Your task to perform on an android device: Open the map Image 0: 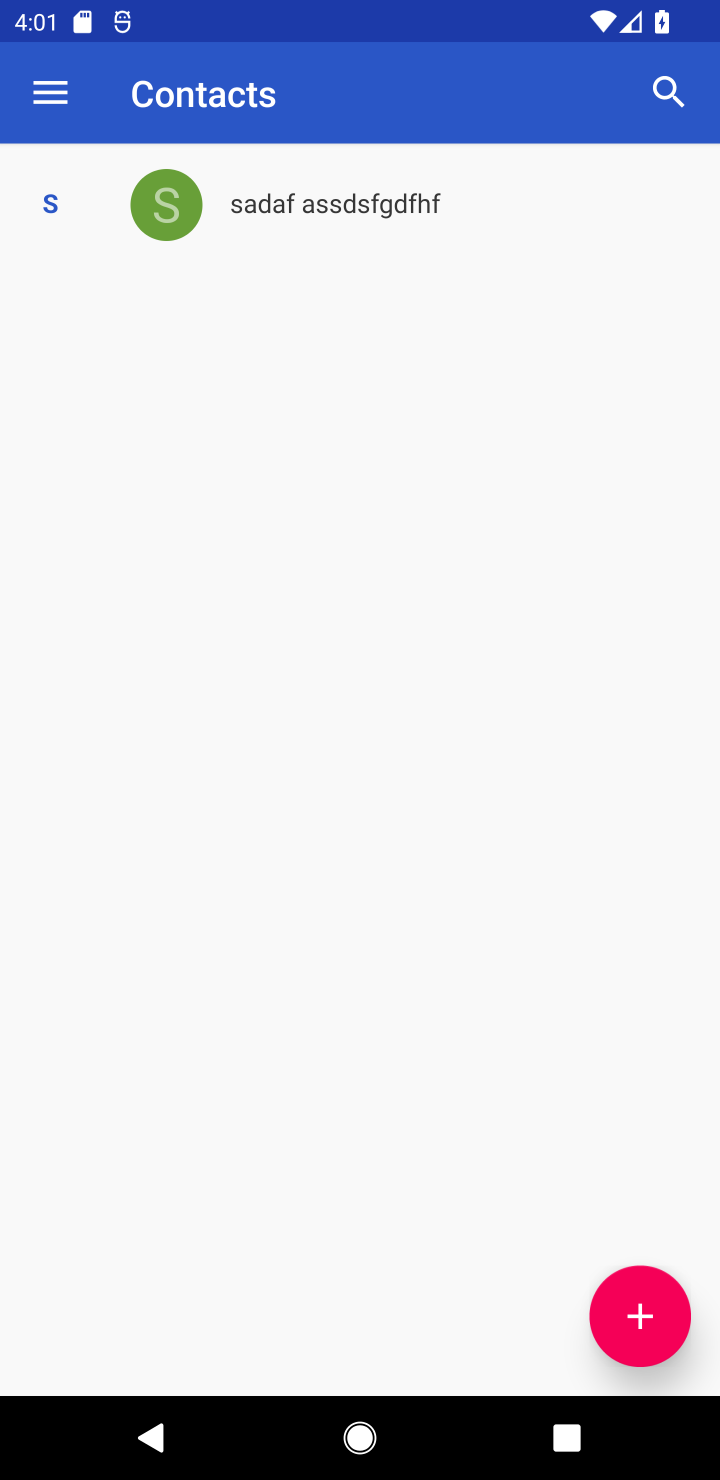
Step 0: press home button
Your task to perform on an android device: Open the map Image 1: 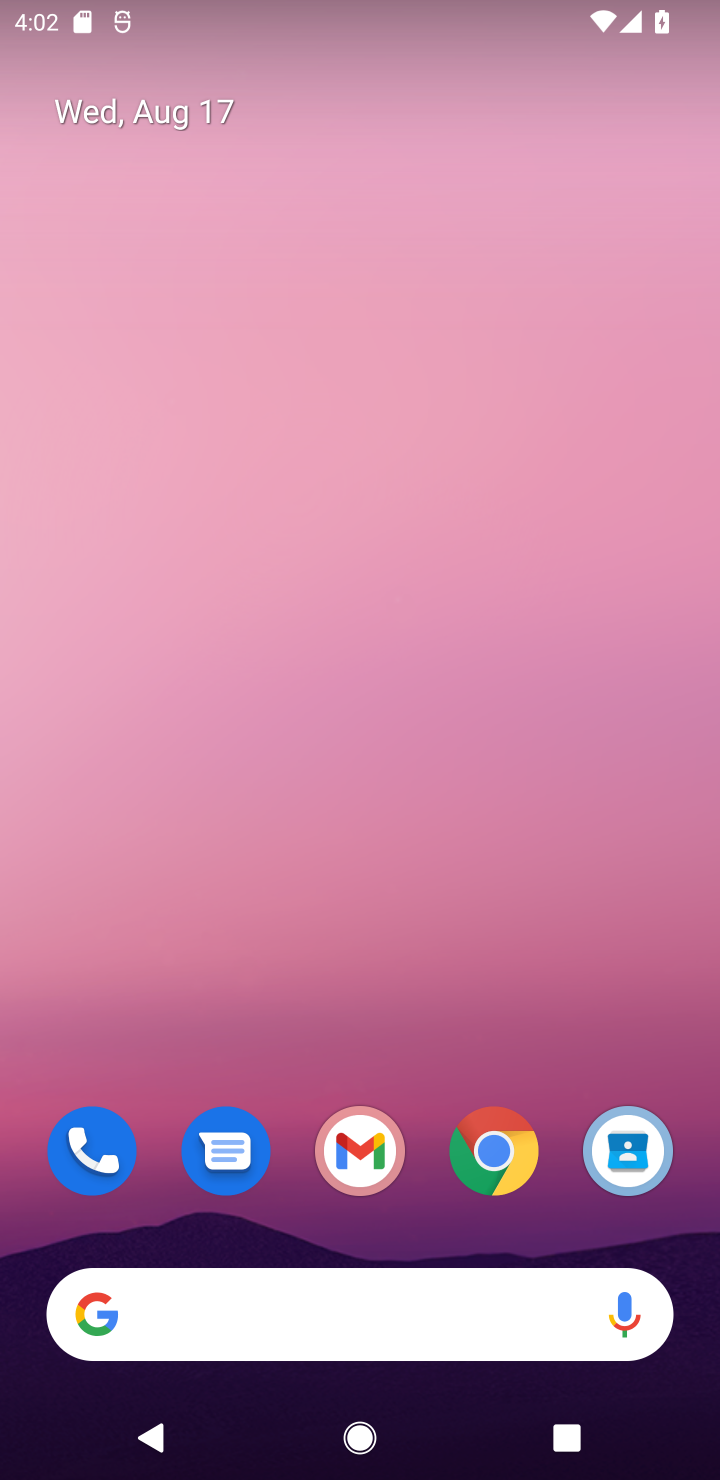
Step 1: drag from (396, 905) to (361, 268)
Your task to perform on an android device: Open the map Image 2: 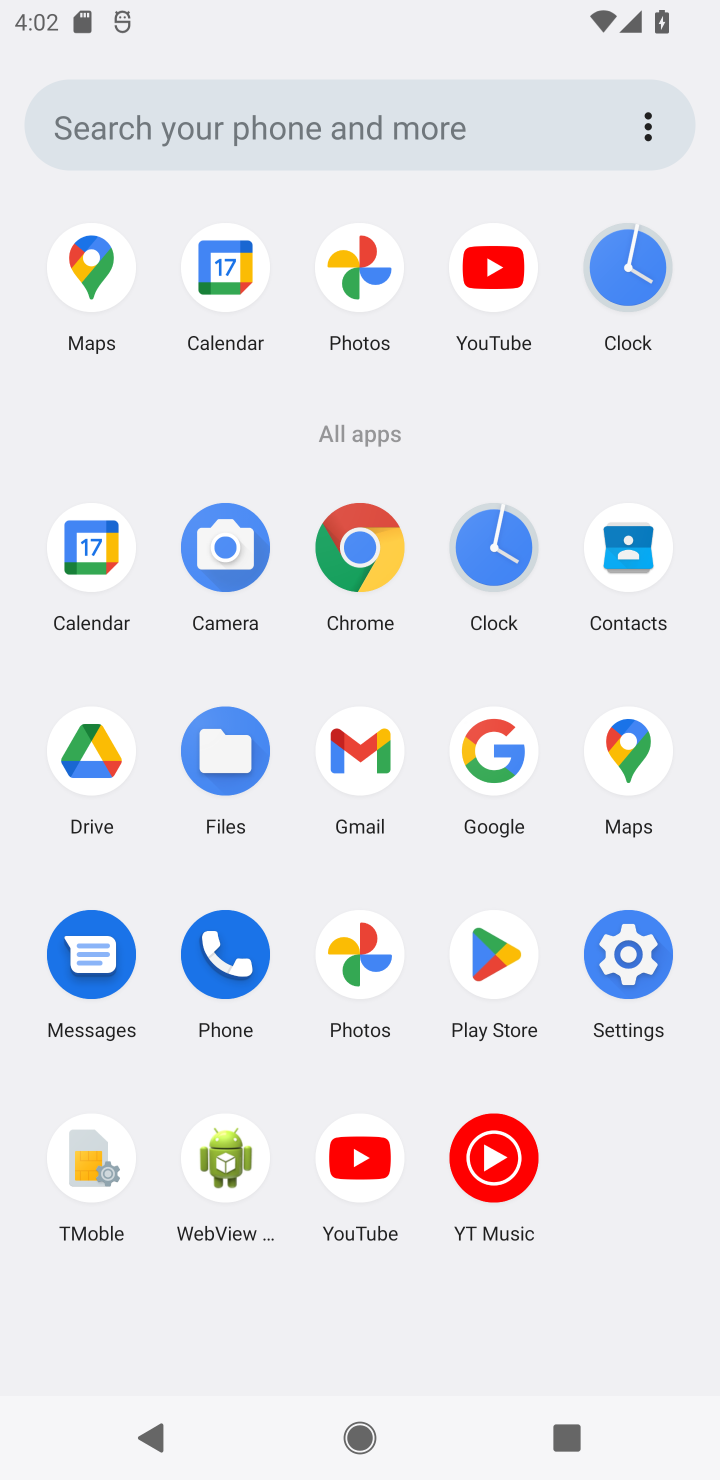
Step 2: click (69, 415)
Your task to perform on an android device: Open the map Image 3: 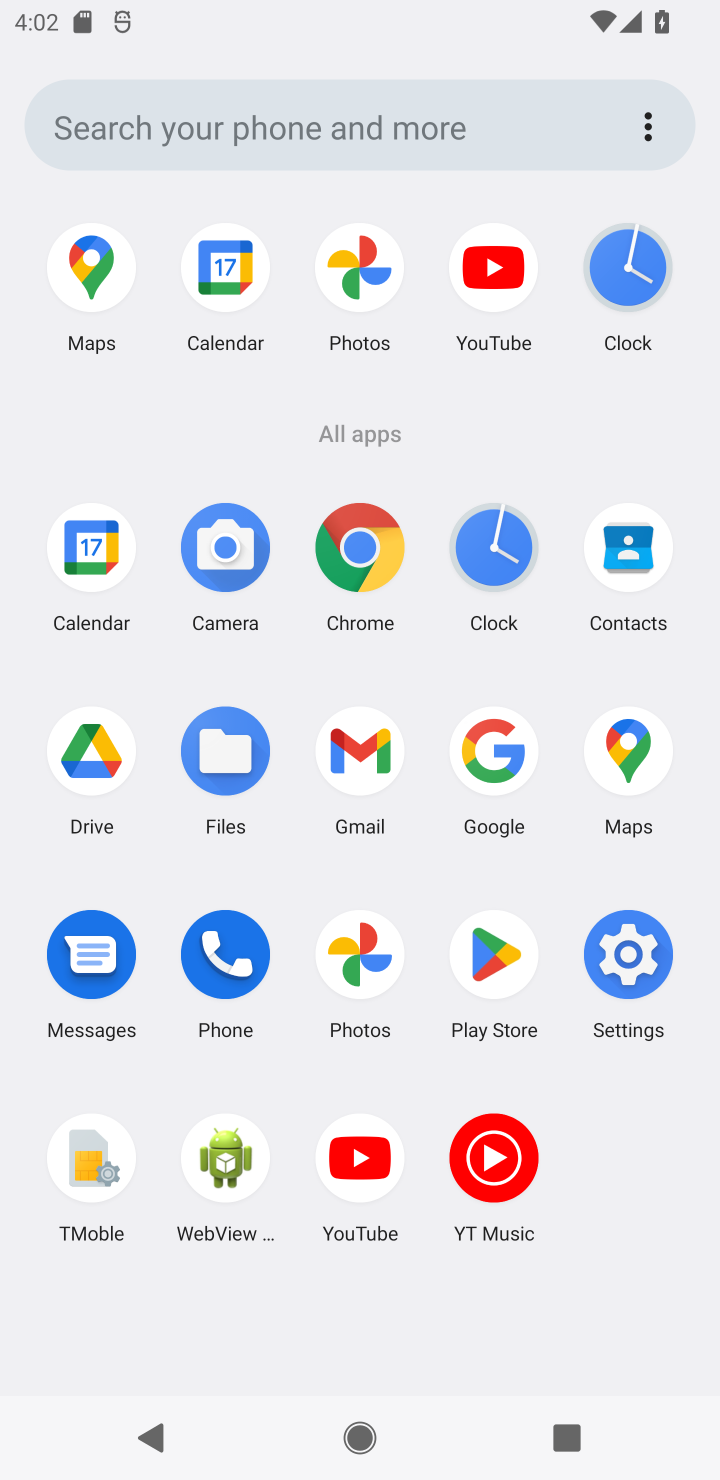
Step 3: click (100, 333)
Your task to perform on an android device: Open the map Image 4: 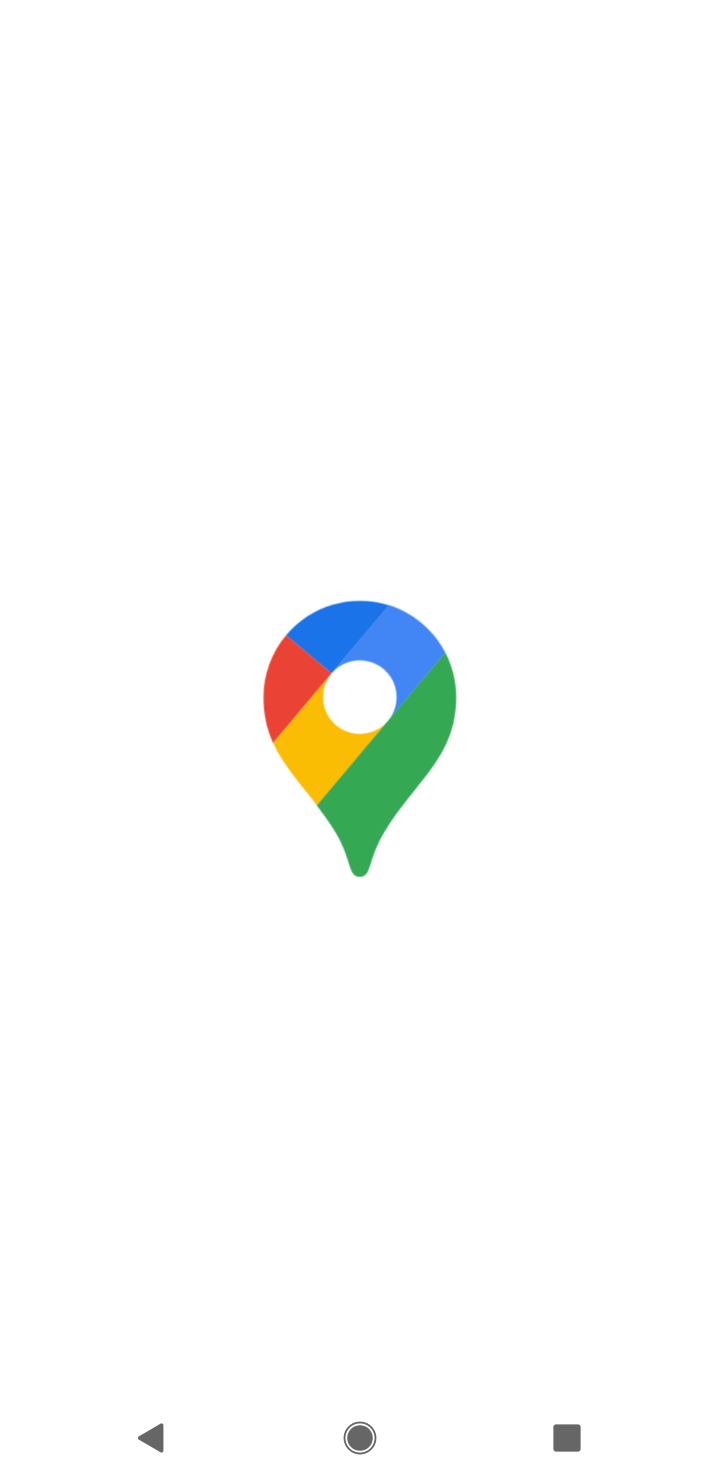
Step 4: task complete